Your task to perform on an android device: change the upload size in google photos Image 0: 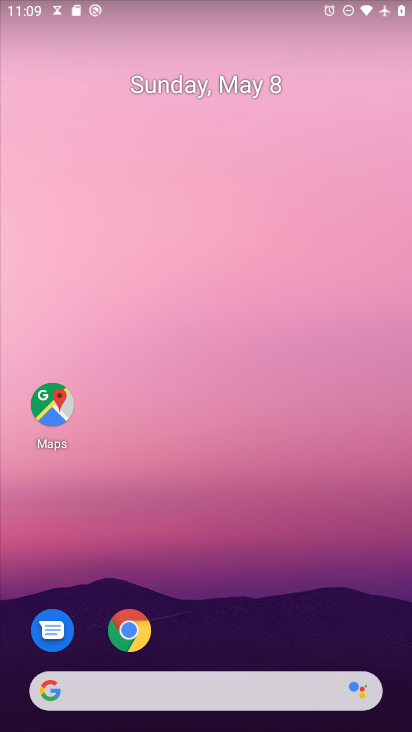
Step 0: drag from (201, 664) to (366, 170)
Your task to perform on an android device: change the upload size in google photos Image 1: 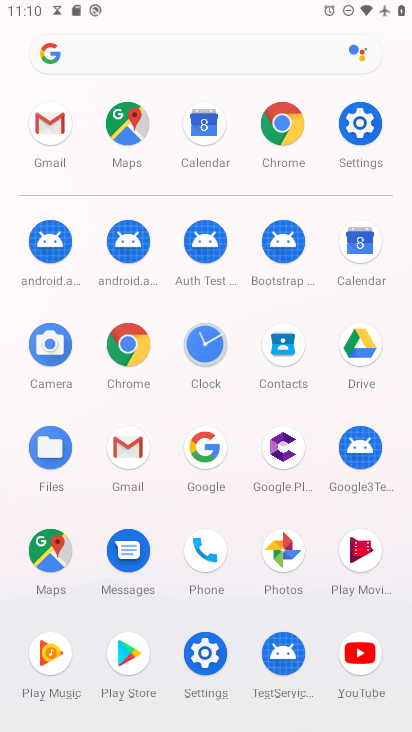
Step 1: click (278, 550)
Your task to perform on an android device: change the upload size in google photos Image 2: 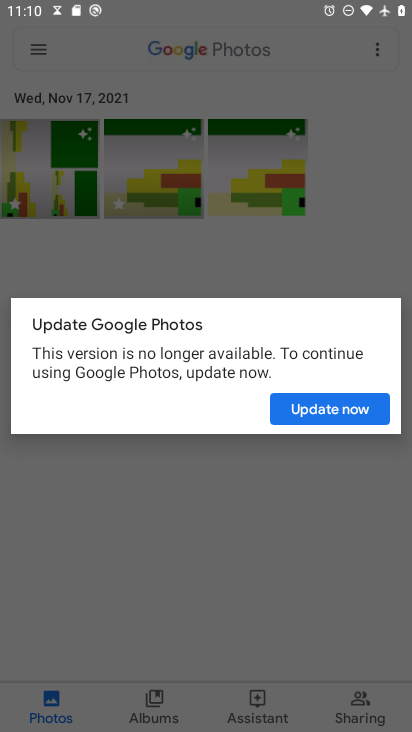
Step 2: click (335, 409)
Your task to perform on an android device: change the upload size in google photos Image 3: 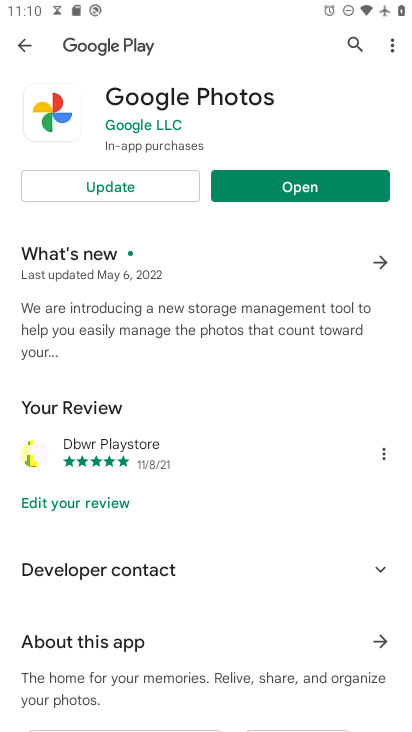
Step 3: click (305, 186)
Your task to perform on an android device: change the upload size in google photos Image 4: 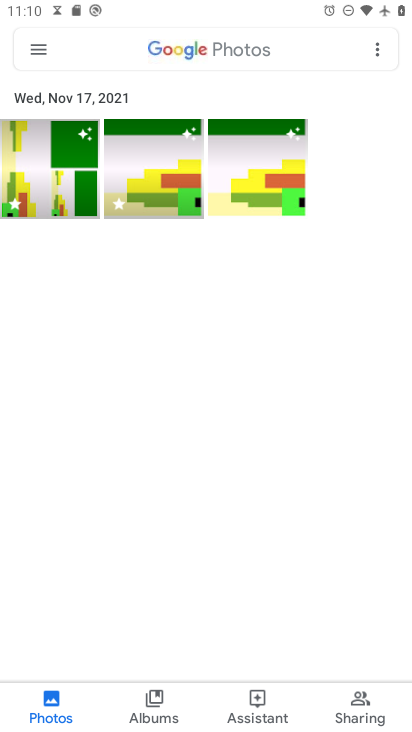
Step 4: click (30, 40)
Your task to perform on an android device: change the upload size in google photos Image 5: 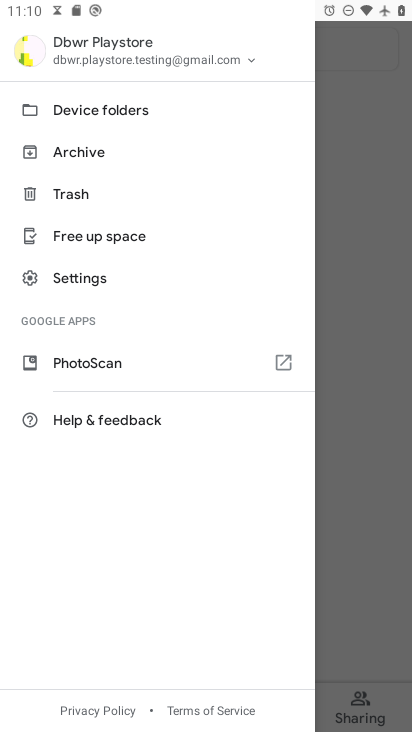
Step 5: click (96, 278)
Your task to perform on an android device: change the upload size in google photos Image 6: 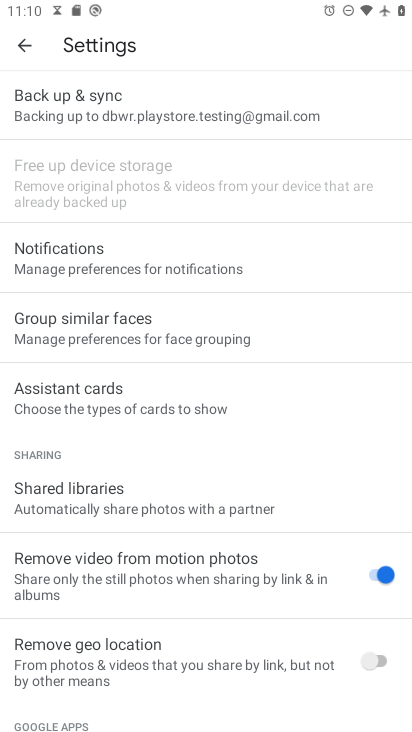
Step 6: click (182, 115)
Your task to perform on an android device: change the upload size in google photos Image 7: 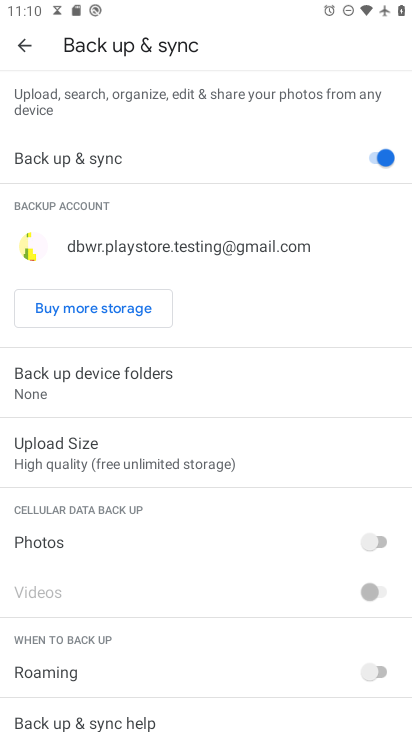
Step 7: click (117, 443)
Your task to perform on an android device: change the upload size in google photos Image 8: 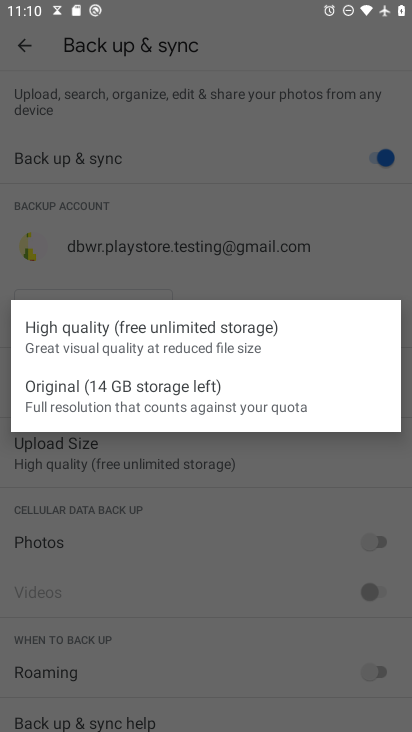
Step 8: click (120, 394)
Your task to perform on an android device: change the upload size in google photos Image 9: 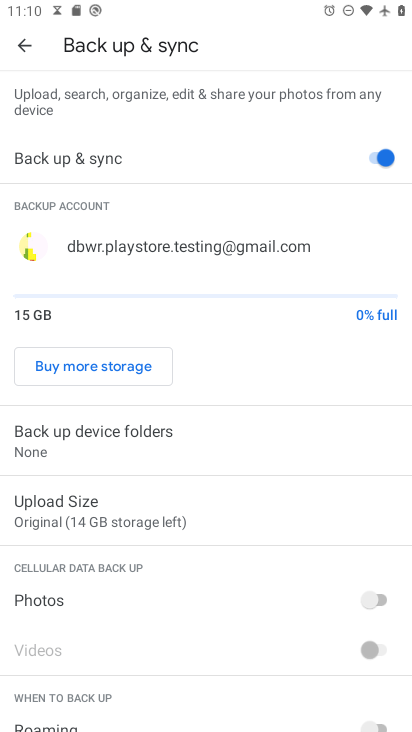
Step 9: task complete